Your task to perform on an android device: open sync settings in chrome Image 0: 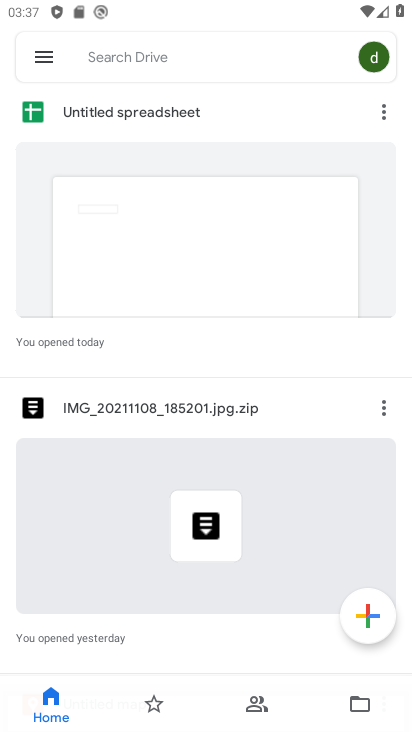
Step 0: press home button
Your task to perform on an android device: open sync settings in chrome Image 1: 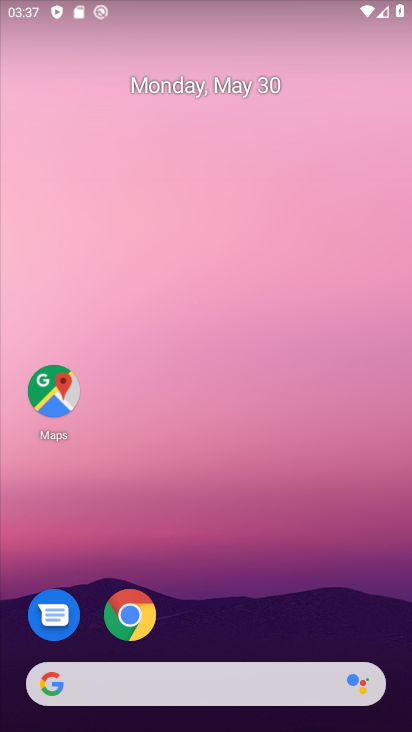
Step 1: click (130, 617)
Your task to perform on an android device: open sync settings in chrome Image 2: 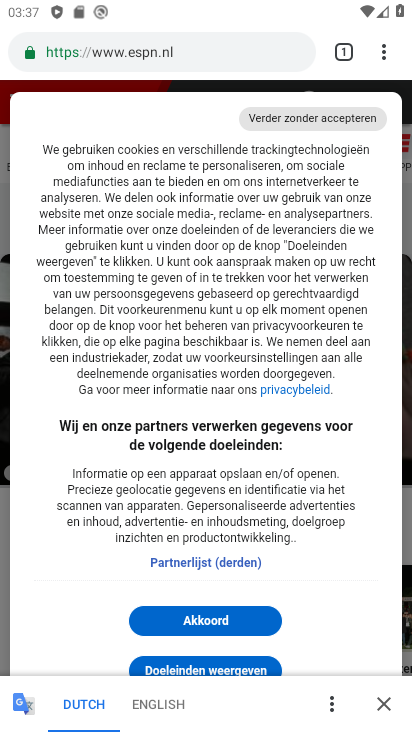
Step 2: click (385, 50)
Your task to perform on an android device: open sync settings in chrome Image 3: 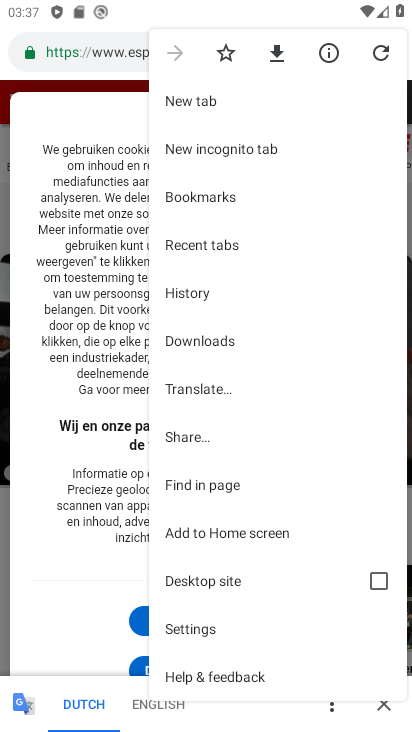
Step 3: click (203, 632)
Your task to perform on an android device: open sync settings in chrome Image 4: 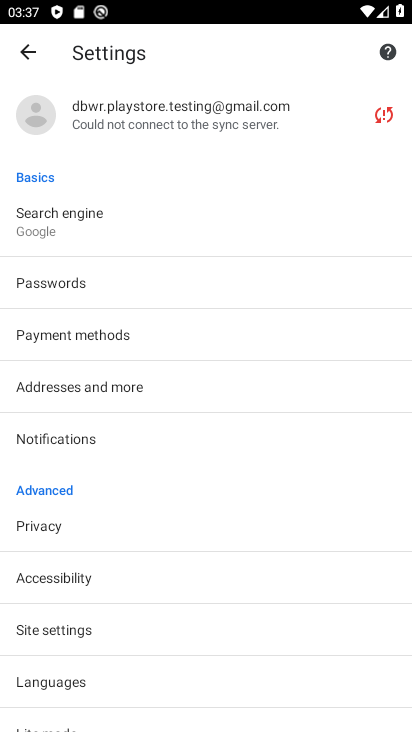
Step 4: drag from (134, 478) to (141, 402)
Your task to perform on an android device: open sync settings in chrome Image 5: 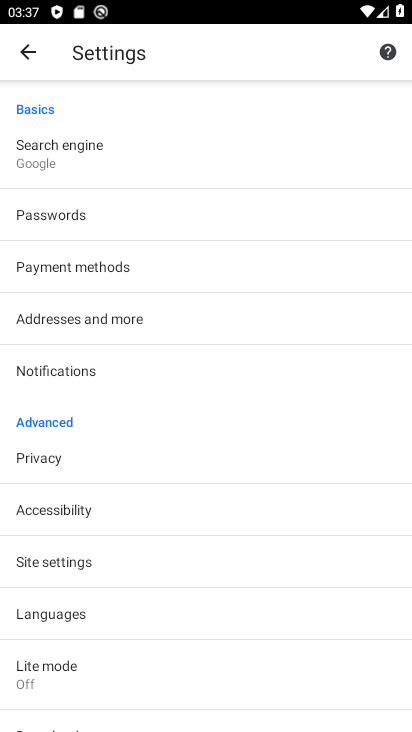
Step 5: click (66, 563)
Your task to perform on an android device: open sync settings in chrome Image 6: 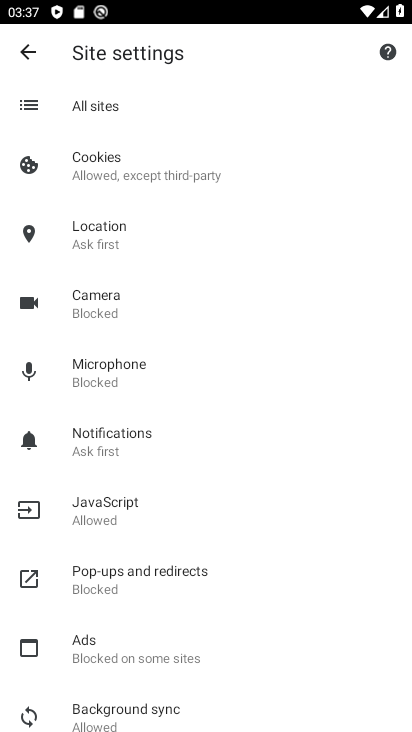
Step 6: drag from (117, 613) to (123, 509)
Your task to perform on an android device: open sync settings in chrome Image 7: 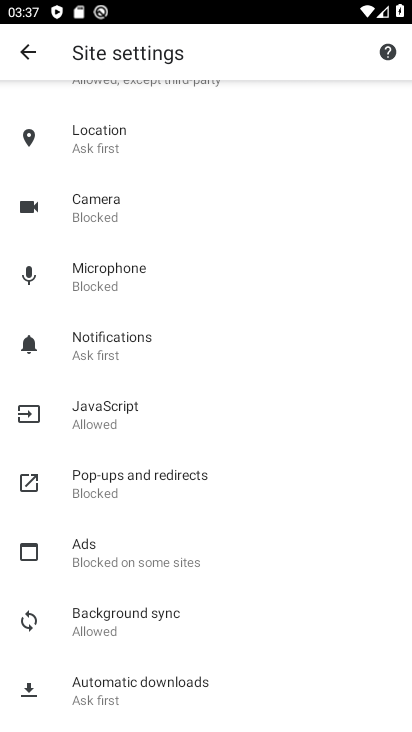
Step 7: drag from (123, 640) to (138, 554)
Your task to perform on an android device: open sync settings in chrome Image 8: 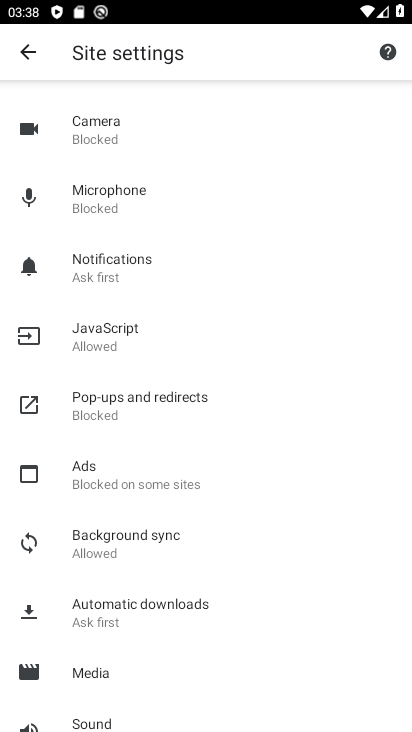
Step 8: click (157, 536)
Your task to perform on an android device: open sync settings in chrome Image 9: 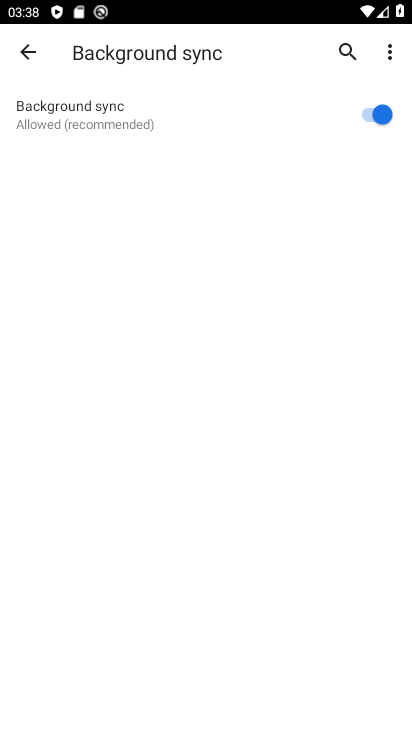
Step 9: task complete